Your task to perform on an android device: What's the weather? Image 0: 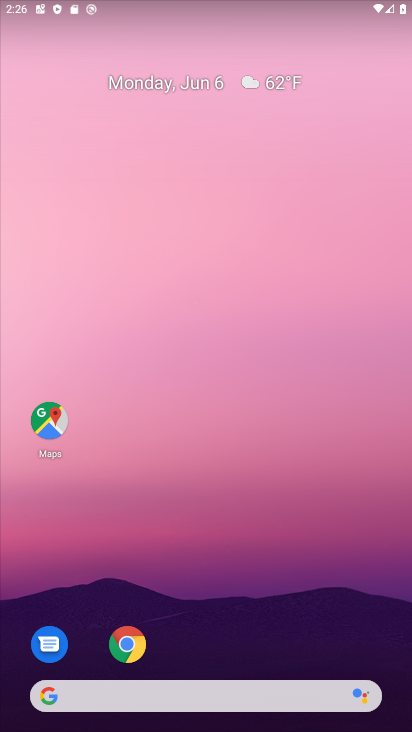
Step 0: click (212, 689)
Your task to perform on an android device: What's the weather? Image 1: 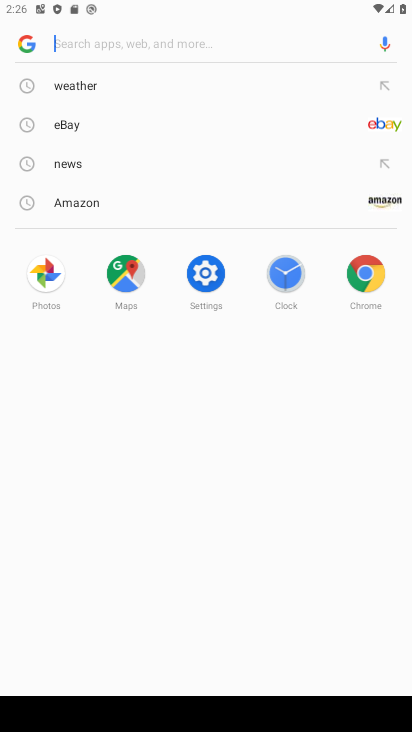
Step 1: type "what's the weather"
Your task to perform on an android device: What's the weather? Image 2: 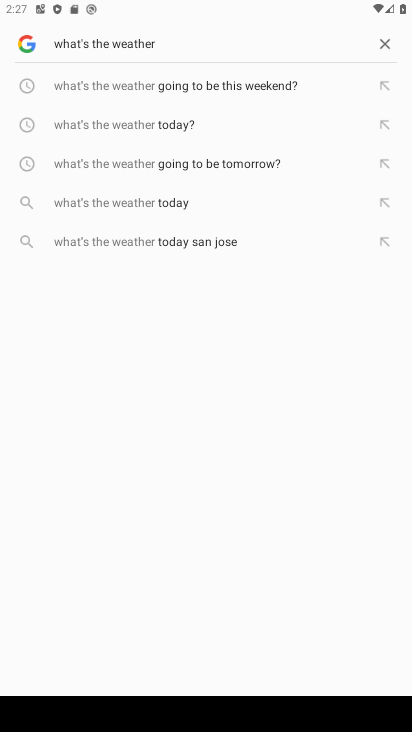
Step 2: type "?"
Your task to perform on an android device: What's the weather? Image 3: 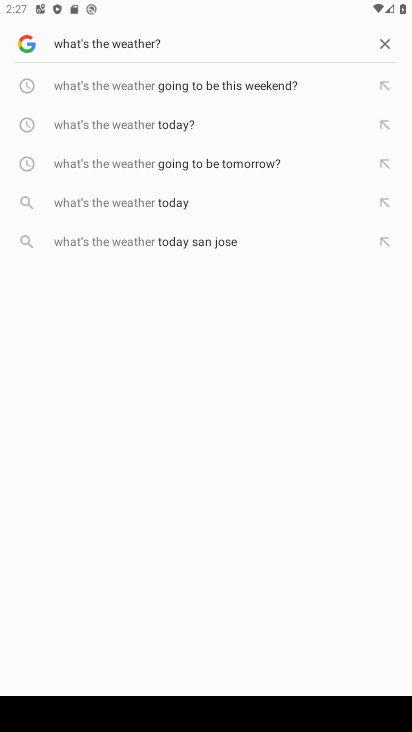
Step 3: click (153, 113)
Your task to perform on an android device: What's the weather? Image 4: 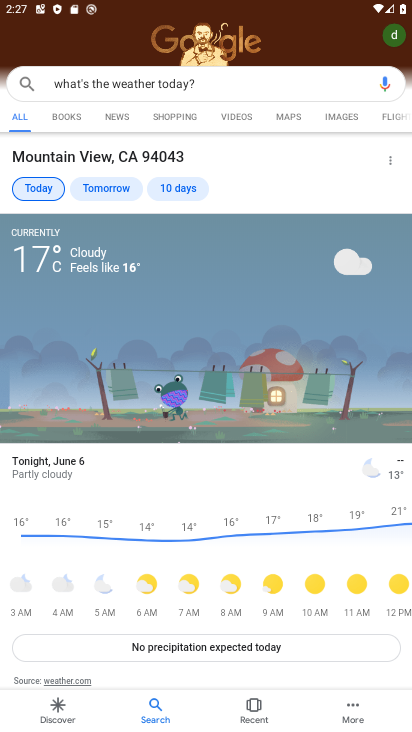
Step 4: task complete